Your task to perform on an android device: Open Yahoo.com Image 0: 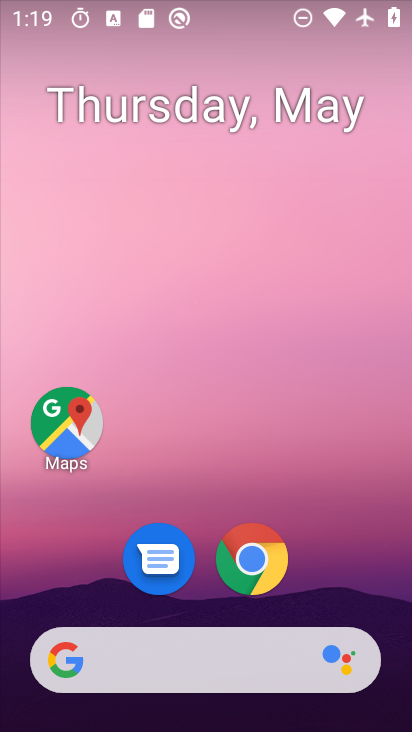
Step 0: drag from (316, 539) to (311, 197)
Your task to perform on an android device: Open Yahoo.com Image 1: 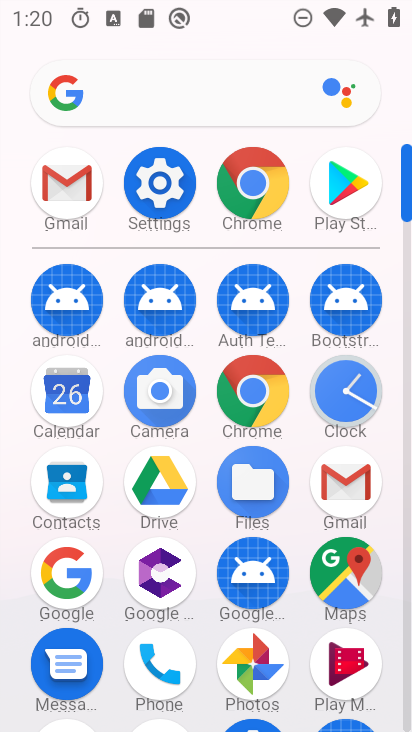
Step 1: click (268, 192)
Your task to perform on an android device: Open Yahoo.com Image 2: 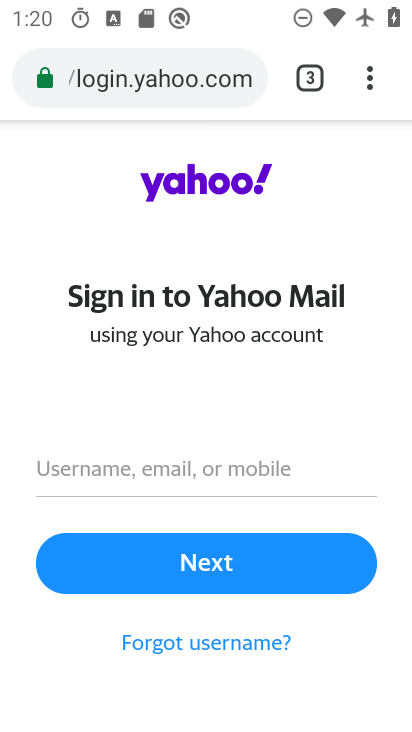
Step 2: task complete